Your task to perform on an android device: open a bookmark in the chrome app Image 0: 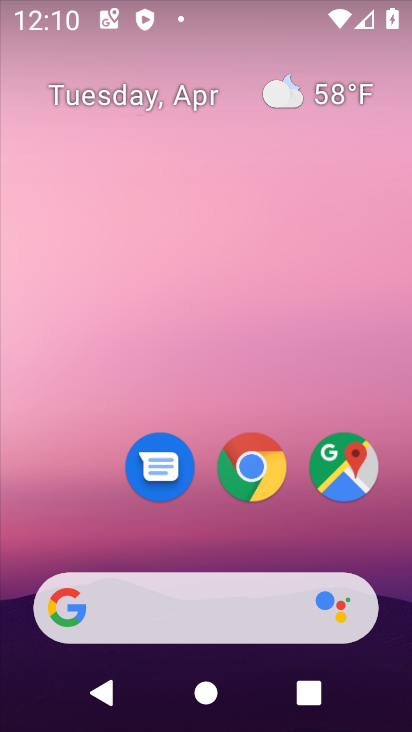
Step 0: click (238, 458)
Your task to perform on an android device: open a bookmark in the chrome app Image 1: 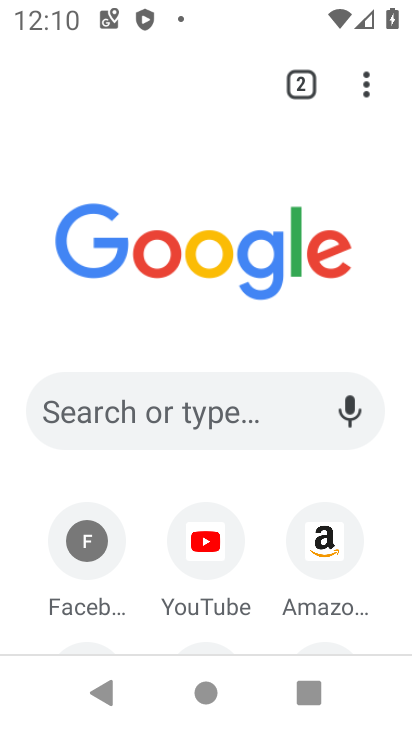
Step 1: click (359, 87)
Your task to perform on an android device: open a bookmark in the chrome app Image 2: 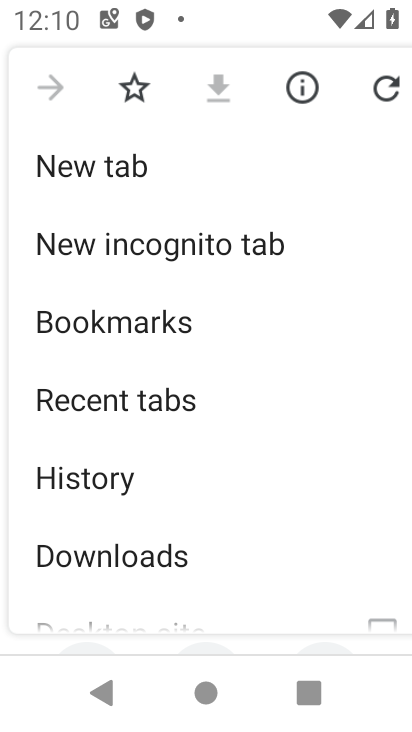
Step 2: click (188, 321)
Your task to perform on an android device: open a bookmark in the chrome app Image 3: 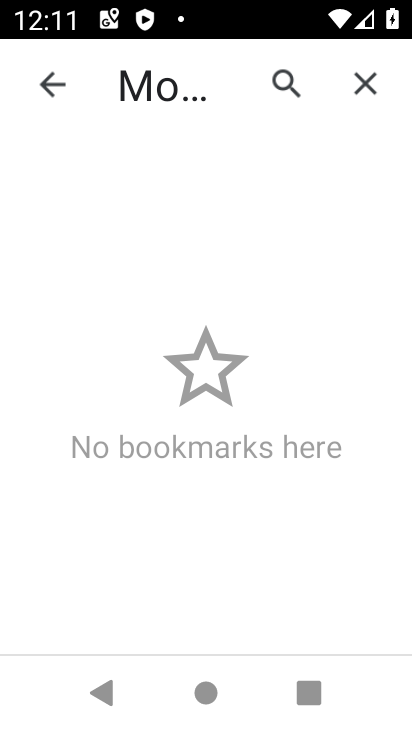
Step 3: task complete